Your task to perform on an android device: open app "Lyft - Rideshare, Bikes, Scooters & Transit" (install if not already installed) Image 0: 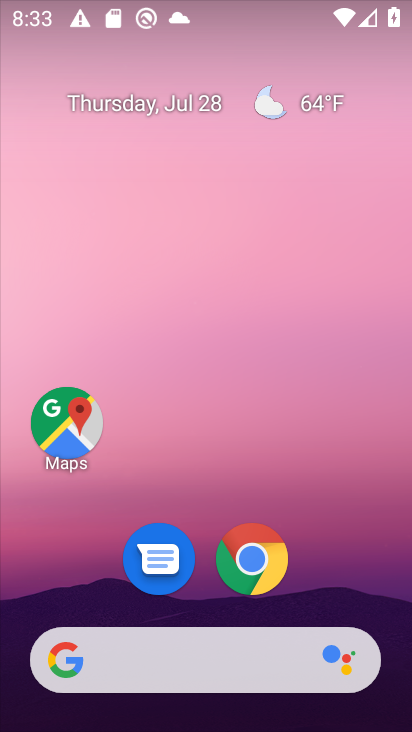
Step 0: drag from (198, 582) to (171, 91)
Your task to perform on an android device: open app "Lyft - Rideshare, Bikes, Scooters & Transit" (install if not already installed) Image 1: 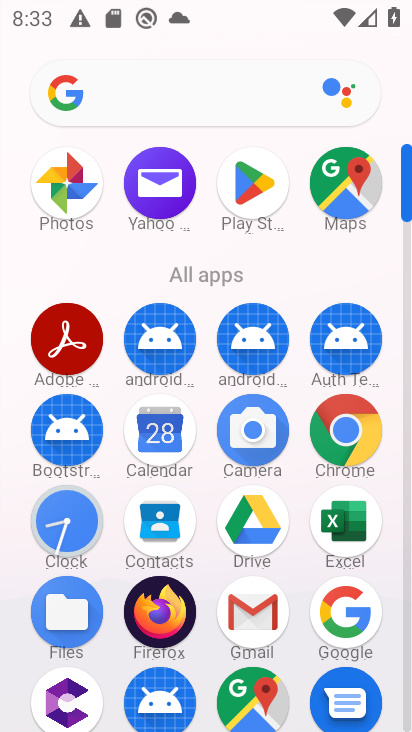
Step 1: click (259, 162)
Your task to perform on an android device: open app "Lyft - Rideshare, Bikes, Scooters & Transit" (install if not already installed) Image 2: 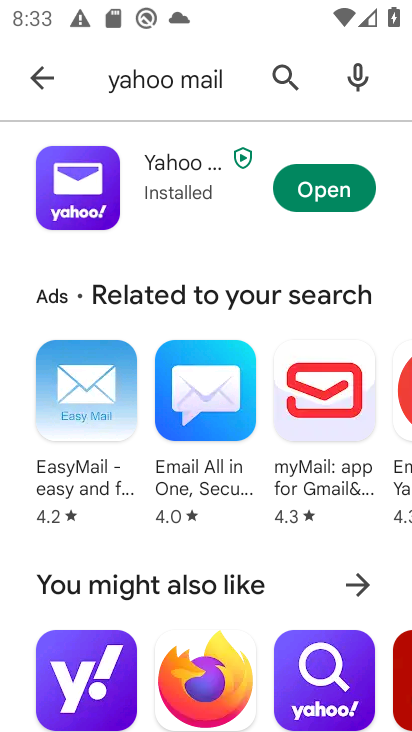
Step 2: click (277, 76)
Your task to perform on an android device: open app "Lyft - Rideshare, Bikes, Scooters & Transit" (install if not already installed) Image 3: 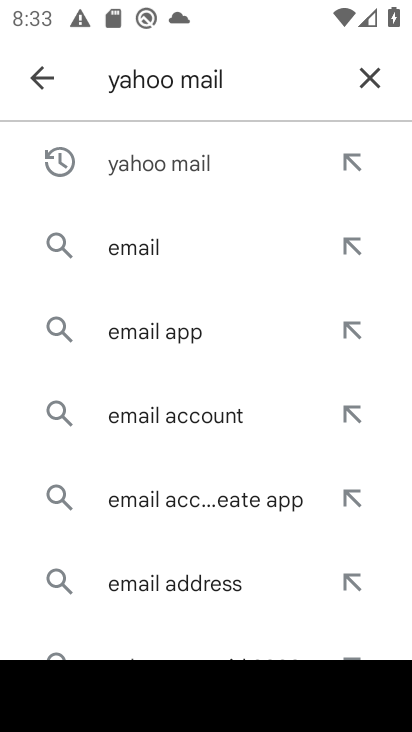
Step 3: click (371, 79)
Your task to perform on an android device: open app "Lyft - Rideshare, Bikes, Scooters & Transit" (install if not already installed) Image 4: 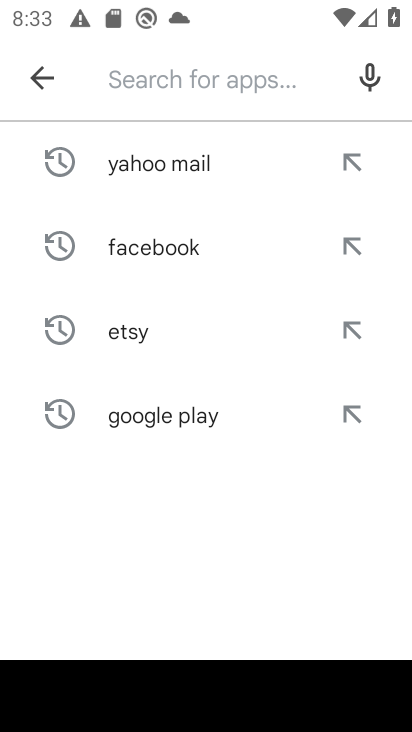
Step 4: type "lyft"
Your task to perform on an android device: open app "Lyft - Rideshare, Bikes, Scooters & Transit" (install if not already installed) Image 5: 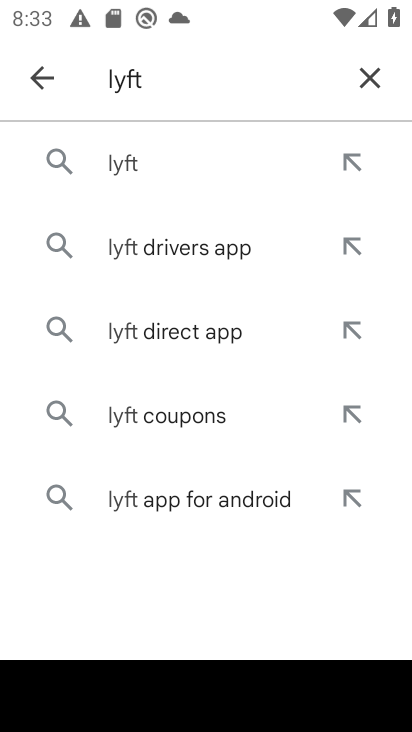
Step 5: click (119, 158)
Your task to perform on an android device: open app "Lyft - Rideshare, Bikes, Scooters & Transit" (install if not already installed) Image 6: 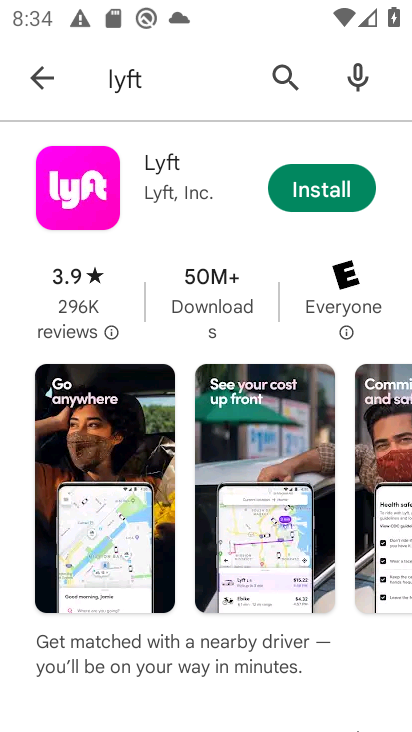
Step 6: click (309, 193)
Your task to perform on an android device: open app "Lyft - Rideshare, Bikes, Scooters & Transit" (install if not already installed) Image 7: 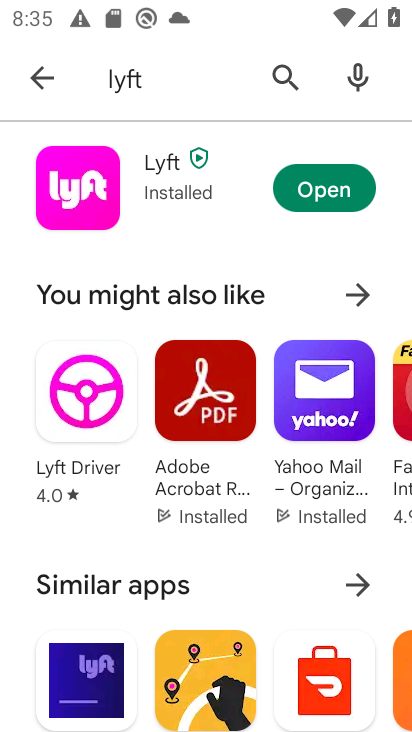
Step 7: click (317, 190)
Your task to perform on an android device: open app "Lyft - Rideshare, Bikes, Scooters & Transit" (install if not already installed) Image 8: 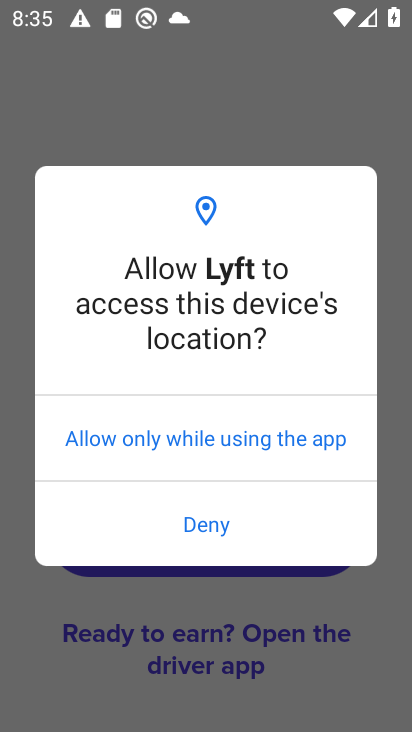
Step 8: task complete